Your task to perform on an android device: Open Maps and search for coffee Image 0: 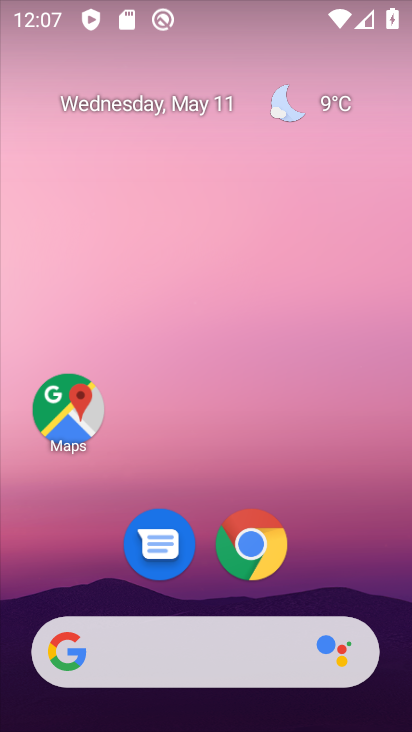
Step 0: drag from (360, 404) to (351, 79)
Your task to perform on an android device: Open Maps and search for coffee Image 1: 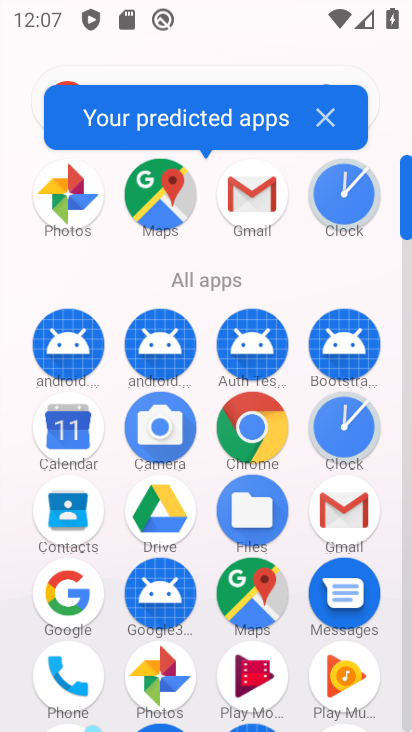
Step 1: click (156, 192)
Your task to perform on an android device: Open Maps and search for coffee Image 2: 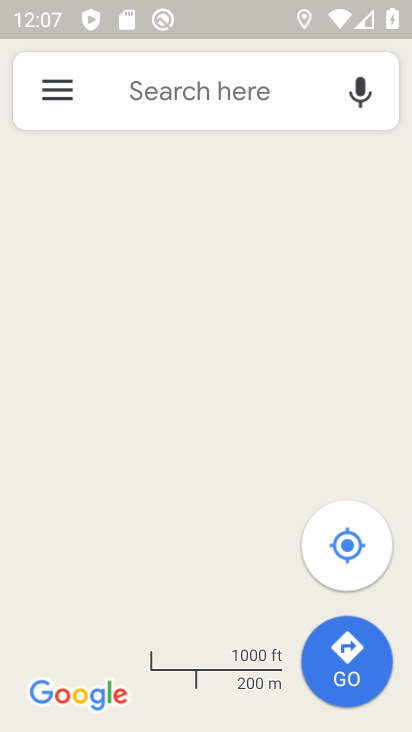
Step 2: click (162, 84)
Your task to perform on an android device: Open Maps and search for coffee Image 3: 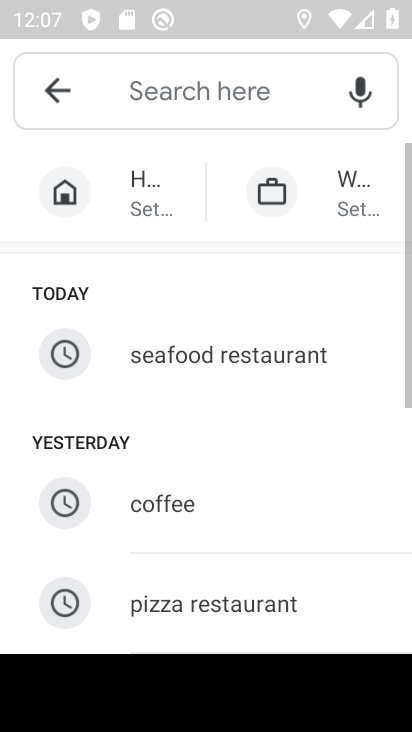
Step 3: type "coffee"
Your task to perform on an android device: Open Maps and search for coffee Image 4: 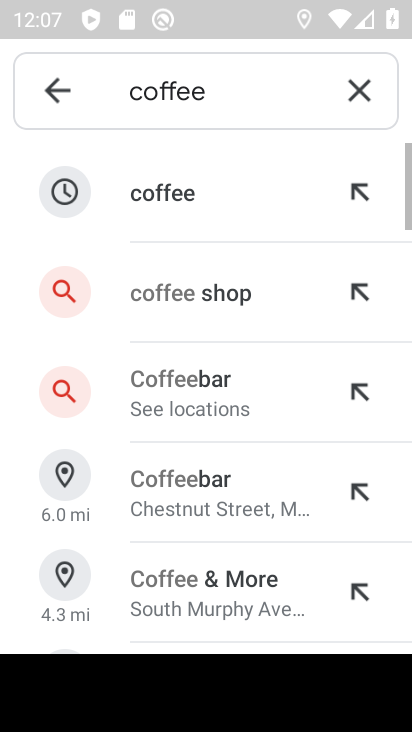
Step 4: click (170, 196)
Your task to perform on an android device: Open Maps and search for coffee Image 5: 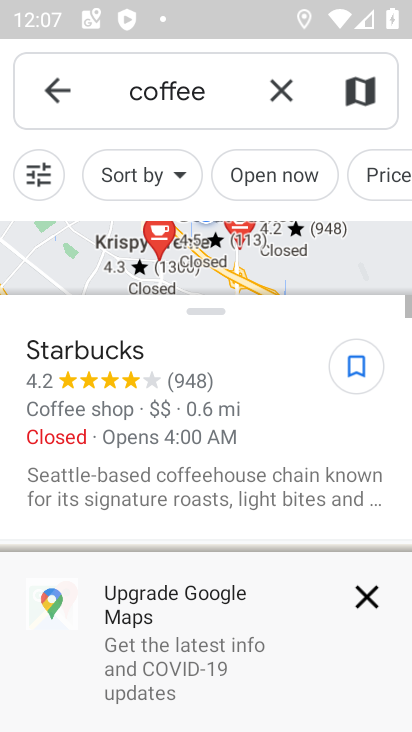
Step 5: task complete